Your task to perform on an android device: What's on my calendar today? Image 0: 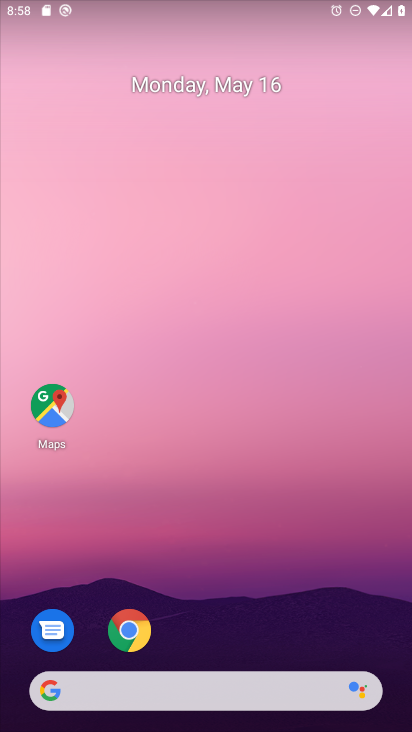
Step 0: drag from (170, 446) to (99, 105)
Your task to perform on an android device: What's on my calendar today? Image 1: 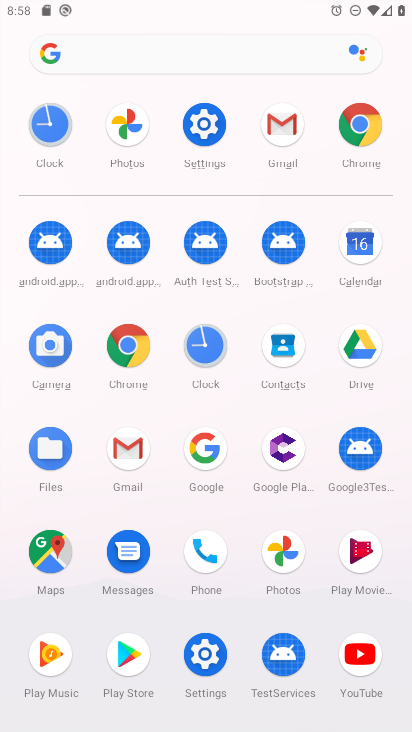
Step 1: click (369, 240)
Your task to perform on an android device: What's on my calendar today? Image 2: 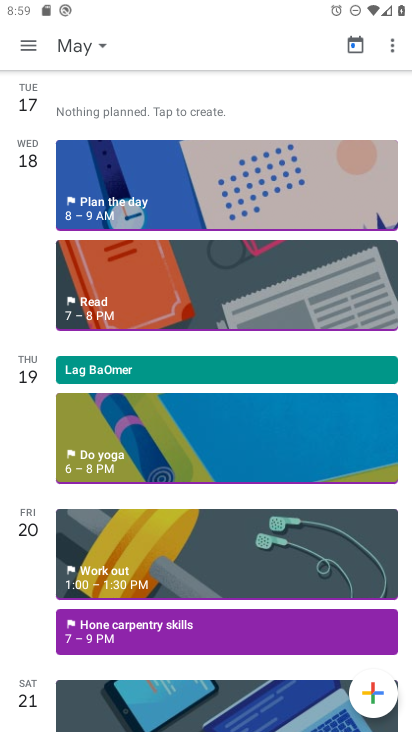
Step 2: task complete